Your task to perform on an android device: Open Amazon Image 0: 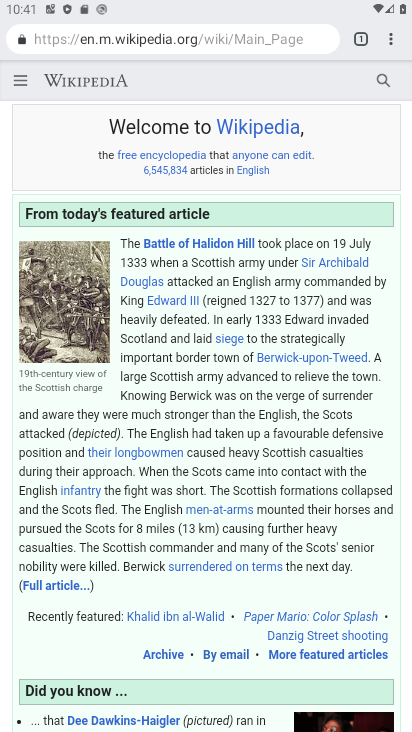
Step 0: press back button
Your task to perform on an android device: Open Amazon Image 1: 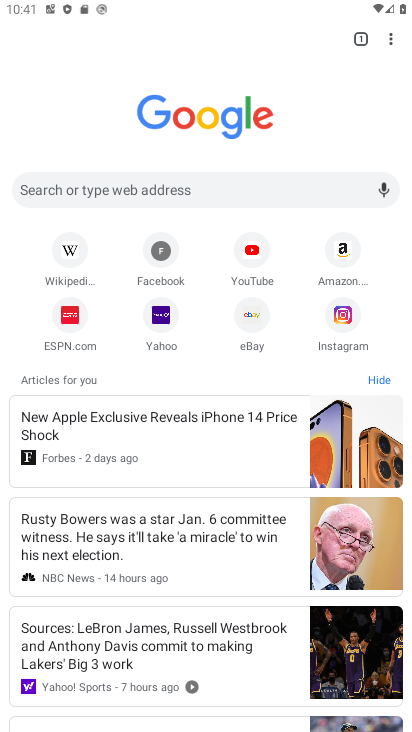
Step 1: click (339, 246)
Your task to perform on an android device: Open Amazon Image 2: 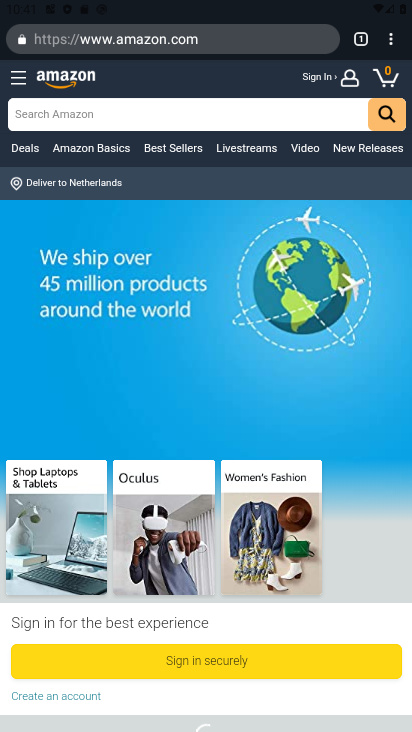
Step 2: task complete